Your task to perform on an android device: Show the shopping cart on bestbuy.com. Search for "bose soundsport free" on bestbuy.com, select the first entry, add it to the cart, then select checkout. Image 0: 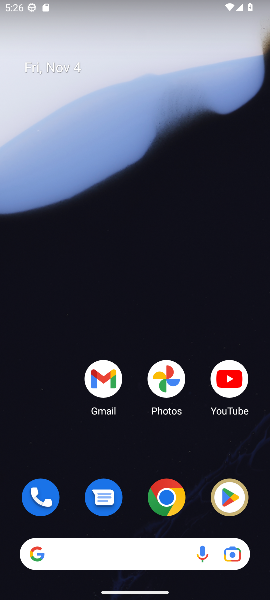
Step 0: click (168, 500)
Your task to perform on an android device: Show the shopping cart on bestbuy.com. Search for "bose soundsport free" on bestbuy.com, select the first entry, add it to the cart, then select checkout. Image 1: 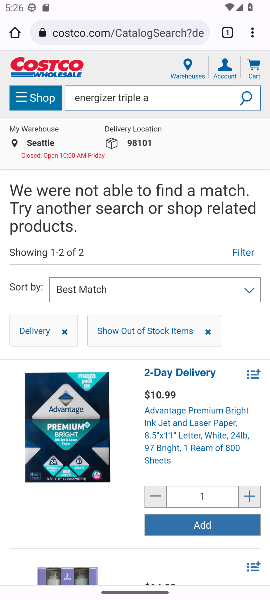
Step 1: click (111, 39)
Your task to perform on an android device: Show the shopping cart on bestbuy.com. Search for "bose soundsport free" on bestbuy.com, select the first entry, add it to the cart, then select checkout. Image 2: 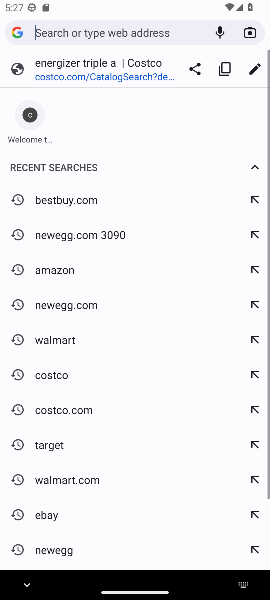
Step 2: click (59, 200)
Your task to perform on an android device: Show the shopping cart on bestbuy.com. Search for "bose soundsport free" on bestbuy.com, select the first entry, add it to the cart, then select checkout. Image 3: 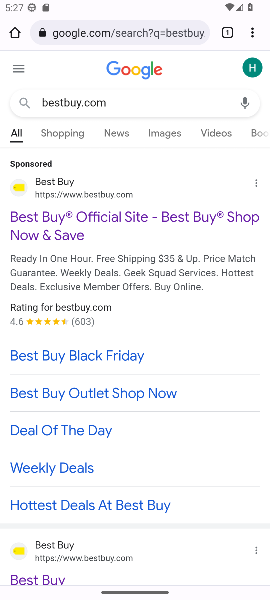
Step 3: click (55, 215)
Your task to perform on an android device: Show the shopping cart on bestbuy.com. Search for "bose soundsport free" on bestbuy.com, select the first entry, add it to the cart, then select checkout. Image 4: 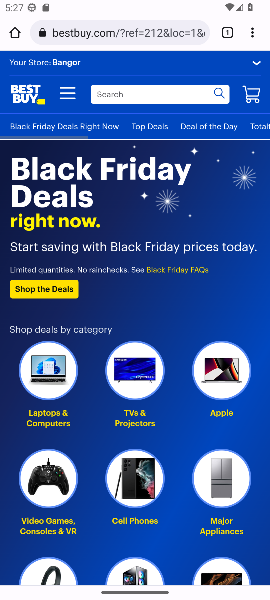
Step 4: click (253, 96)
Your task to perform on an android device: Show the shopping cart on bestbuy.com. Search for "bose soundsport free" on bestbuy.com, select the first entry, add it to the cart, then select checkout. Image 5: 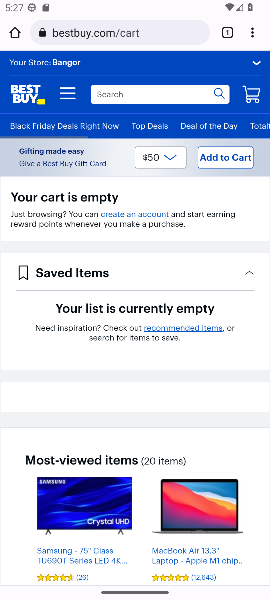
Step 5: click (109, 95)
Your task to perform on an android device: Show the shopping cart on bestbuy.com. Search for "bose soundsport free" on bestbuy.com, select the first entry, add it to the cart, then select checkout. Image 6: 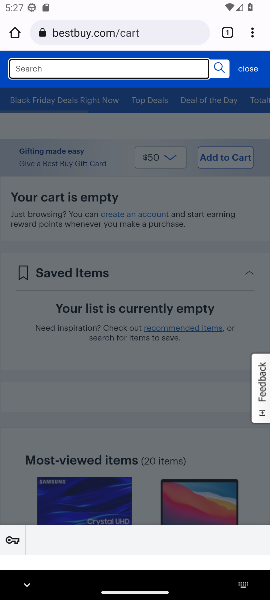
Step 6: click (110, 69)
Your task to perform on an android device: Show the shopping cart on bestbuy.com. Search for "bose soundsport free" on bestbuy.com, select the first entry, add it to the cart, then select checkout. Image 7: 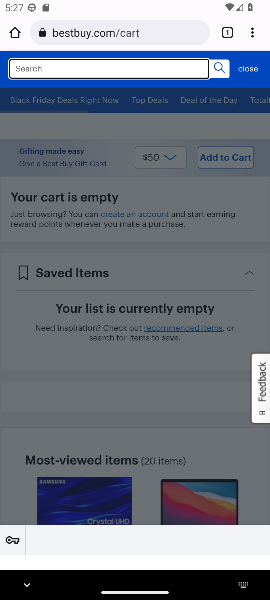
Step 7: type "bose soundsport free"
Your task to perform on an android device: Show the shopping cart on bestbuy.com. Search for "bose soundsport free" on bestbuy.com, select the first entry, add it to the cart, then select checkout. Image 8: 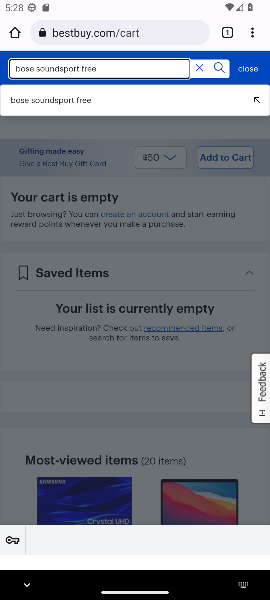
Step 8: click (32, 101)
Your task to perform on an android device: Show the shopping cart on bestbuy.com. Search for "bose soundsport free" on bestbuy.com, select the first entry, add it to the cart, then select checkout. Image 9: 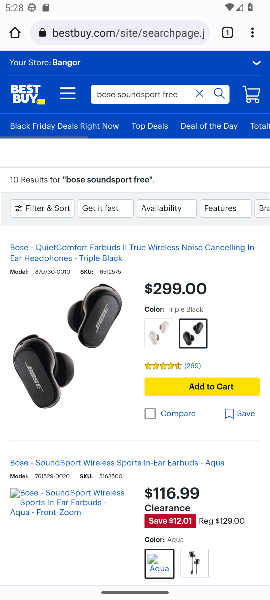
Step 9: click (90, 340)
Your task to perform on an android device: Show the shopping cart on bestbuy.com. Search for "bose soundsport free" on bestbuy.com, select the first entry, add it to the cart, then select checkout. Image 10: 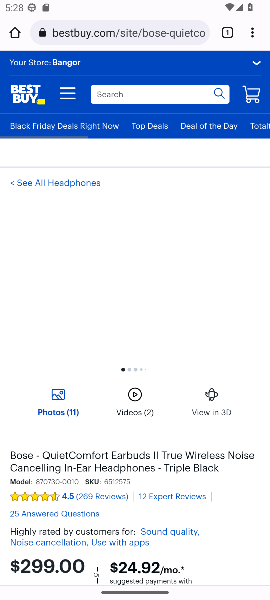
Step 10: task complete